Your task to perform on an android device: Clear the cart on ebay.com. Add bose soundsport free to the cart on ebay.com, then select checkout. Image 0: 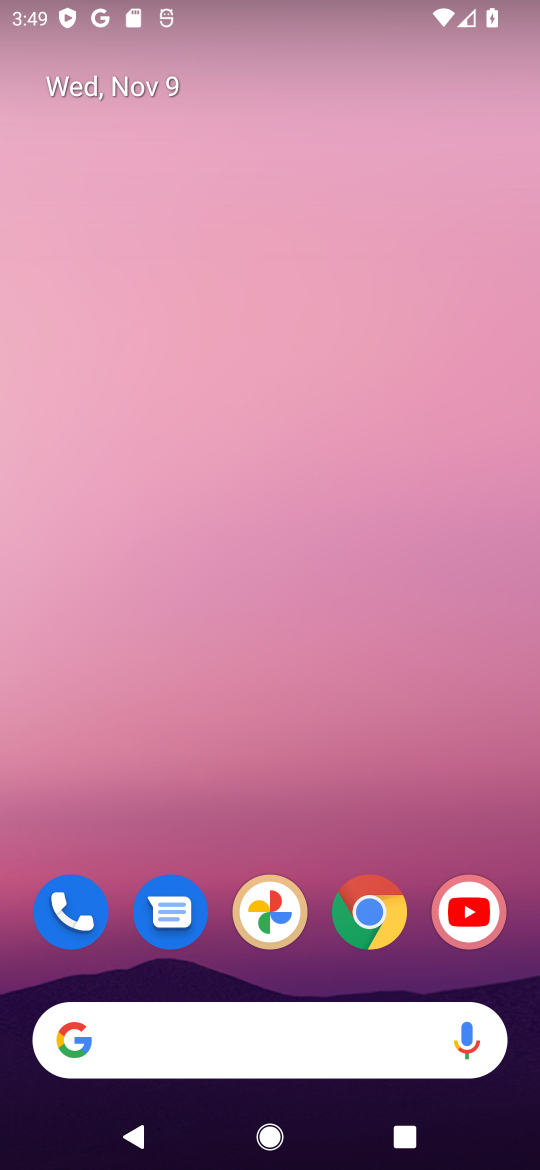
Step 0: click (371, 910)
Your task to perform on an android device: Clear the cart on ebay.com. Add bose soundsport free to the cart on ebay.com, then select checkout. Image 1: 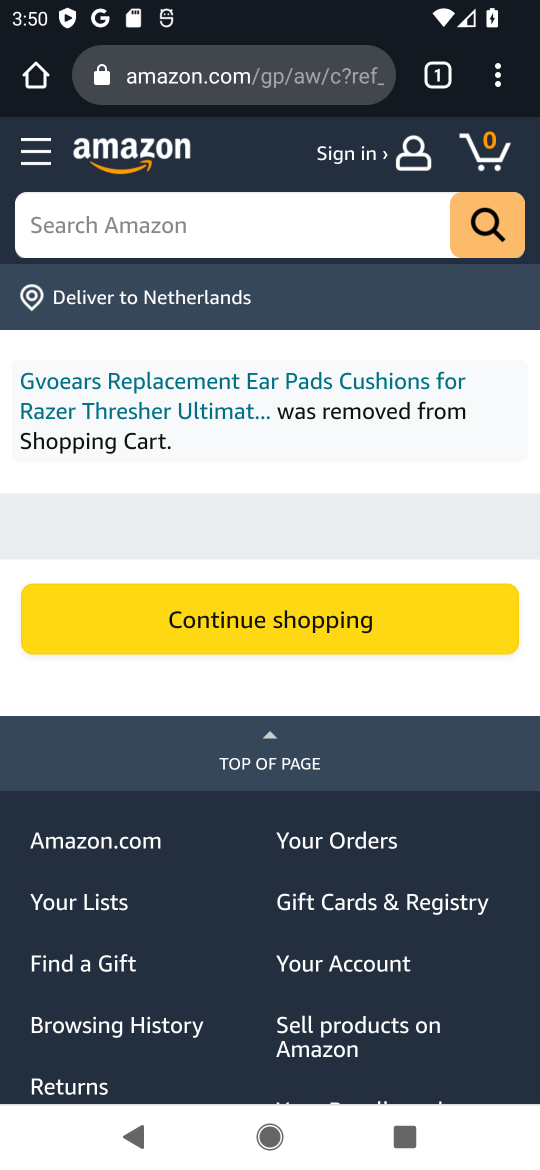
Step 1: click (274, 79)
Your task to perform on an android device: Clear the cart on ebay.com. Add bose soundsport free to the cart on ebay.com, then select checkout. Image 2: 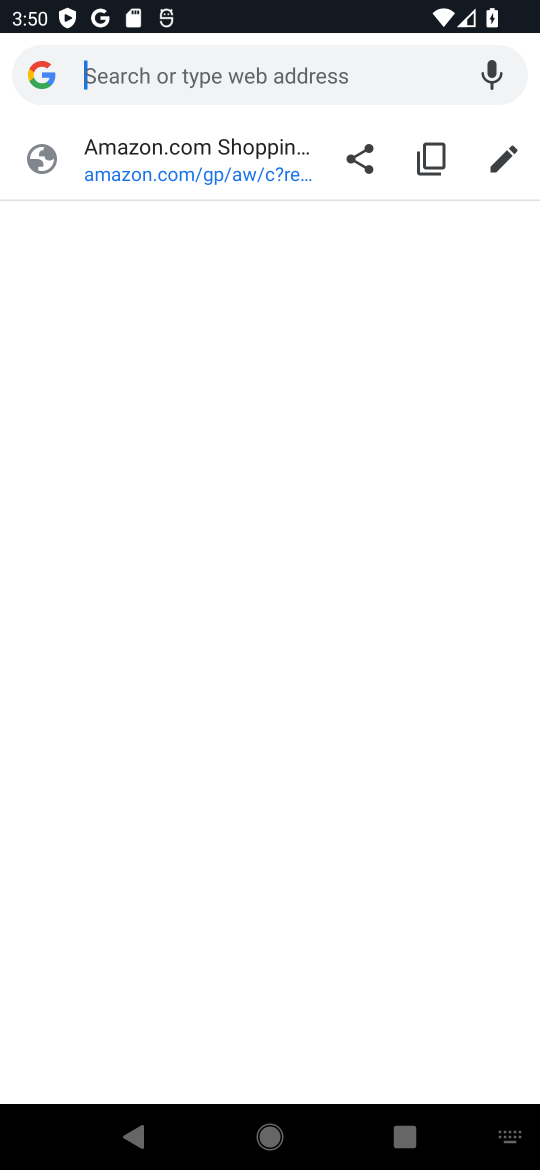
Step 2: type "ebay"
Your task to perform on an android device: Clear the cart on ebay.com. Add bose soundsport free to the cart on ebay.com, then select checkout. Image 3: 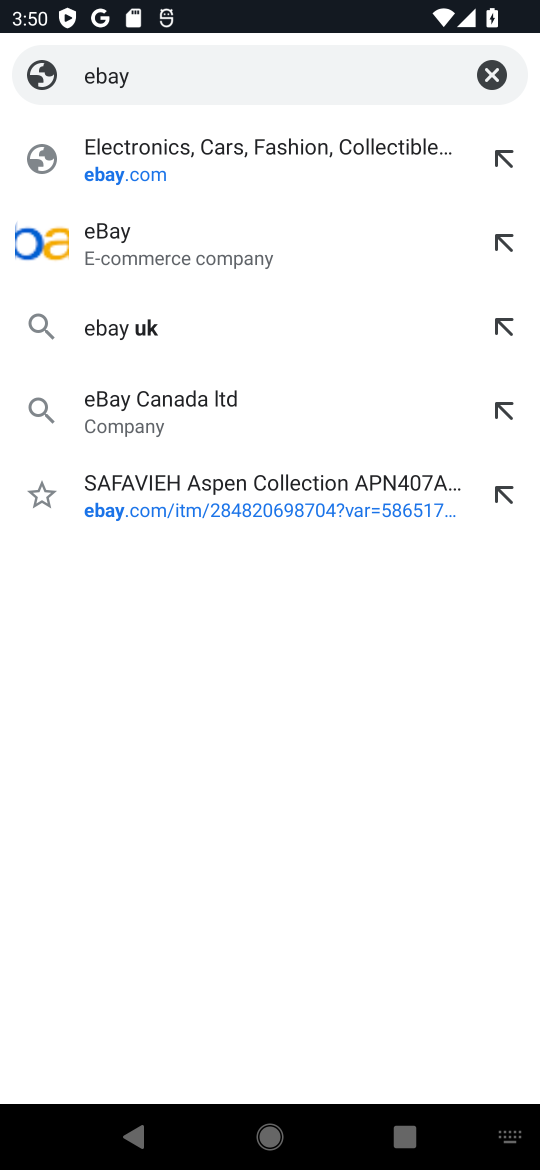
Step 3: click (104, 230)
Your task to perform on an android device: Clear the cart on ebay.com. Add bose soundsport free to the cart on ebay.com, then select checkout. Image 4: 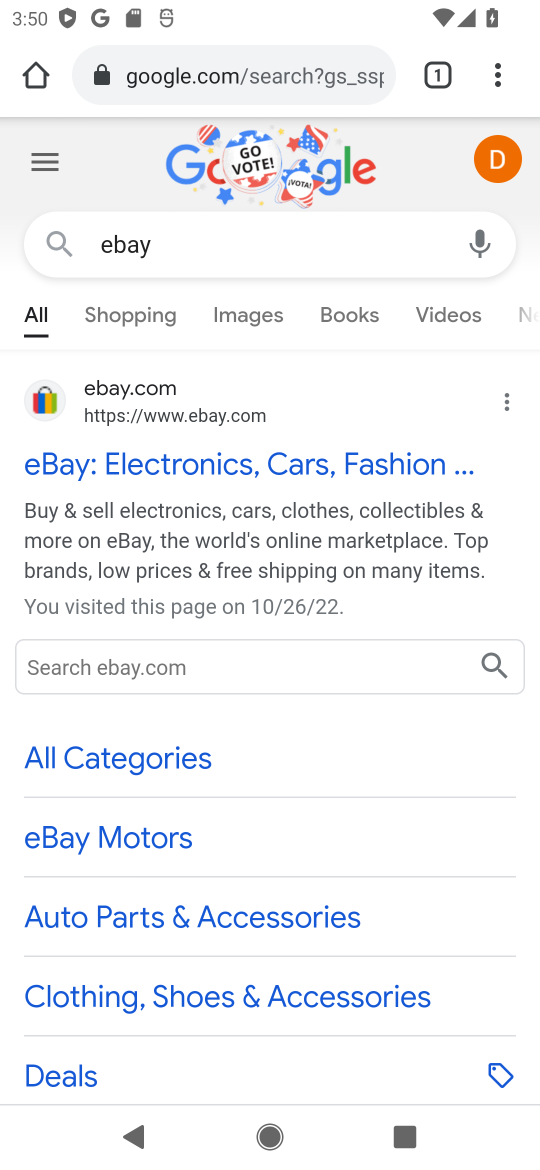
Step 4: click (190, 452)
Your task to perform on an android device: Clear the cart on ebay.com. Add bose soundsport free to the cart on ebay.com, then select checkout. Image 5: 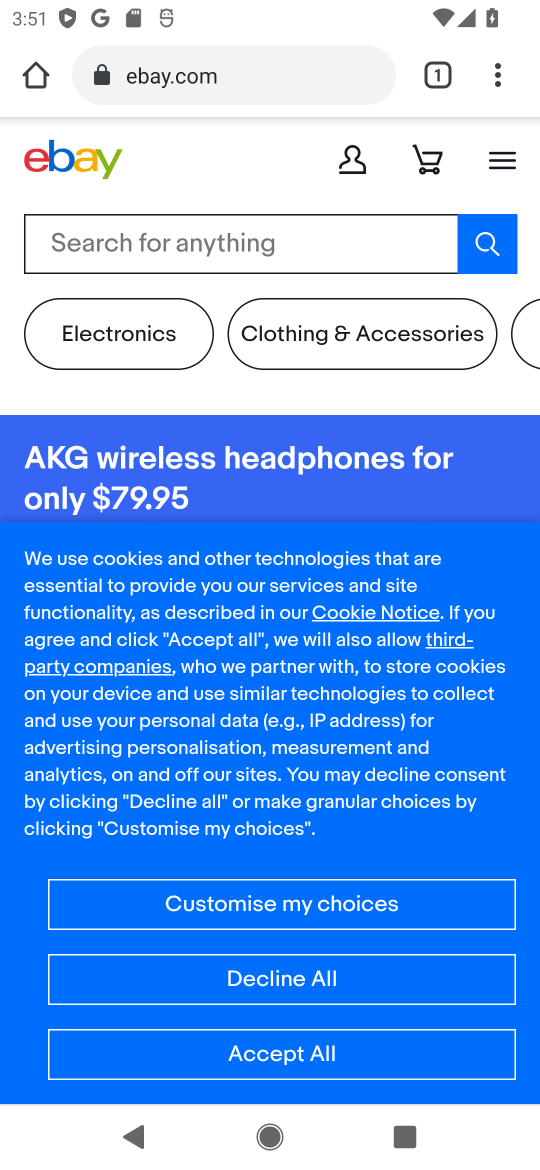
Step 5: click (421, 159)
Your task to perform on an android device: Clear the cart on ebay.com. Add bose soundsport free to the cart on ebay.com, then select checkout. Image 6: 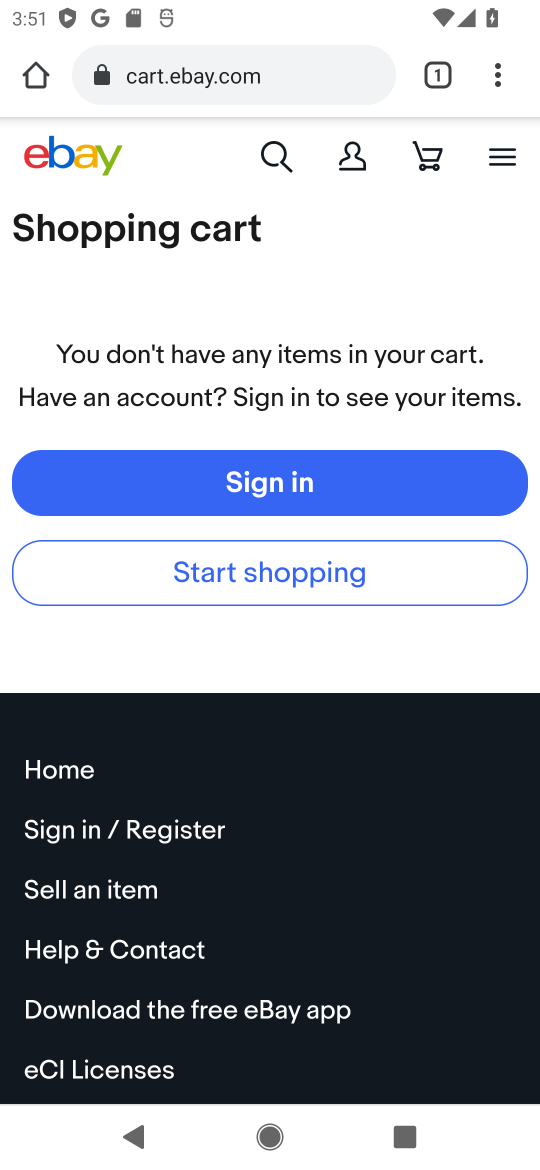
Step 6: click (276, 163)
Your task to perform on an android device: Clear the cart on ebay.com. Add bose soundsport free to the cart on ebay.com, then select checkout. Image 7: 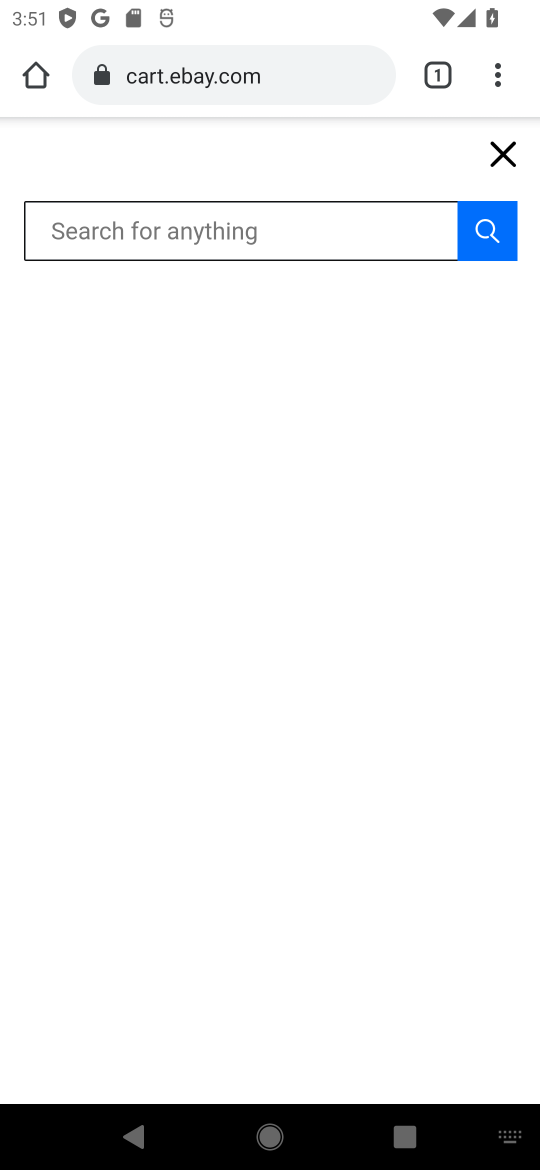
Step 7: click (230, 227)
Your task to perform on an android device: Clear the cart on ebay.com. Add bose soundsport free to the cart on ebay.com, then select checkout. Image 8: 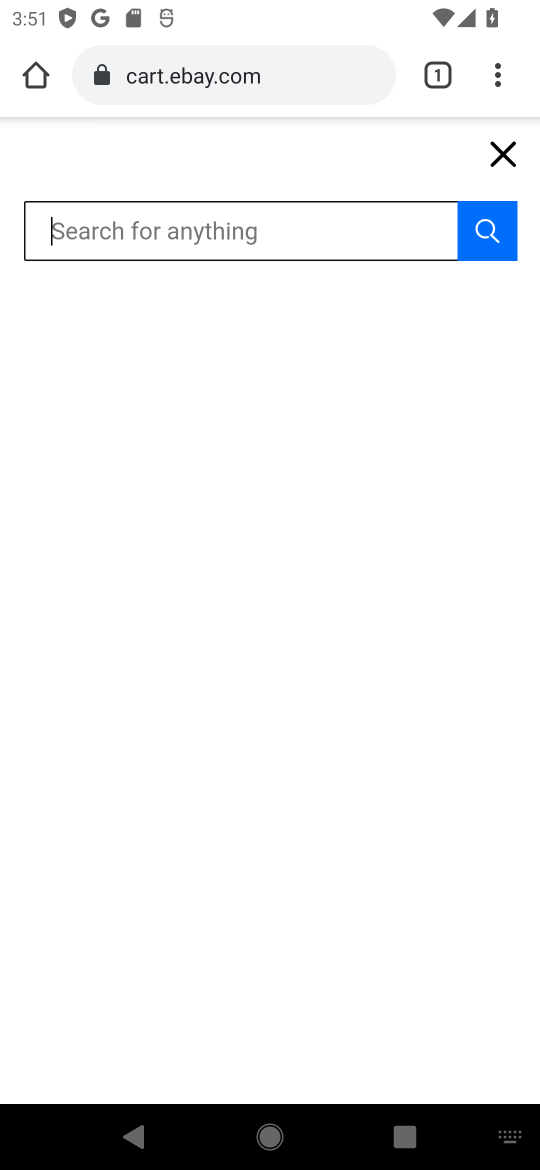
Step 8: type "bose soundsport free"
Your task to perform on an android device: Clear the cart on ebay.com. Add bose soundsport free to the cart on ebay.com, then select checkout. Image 9: 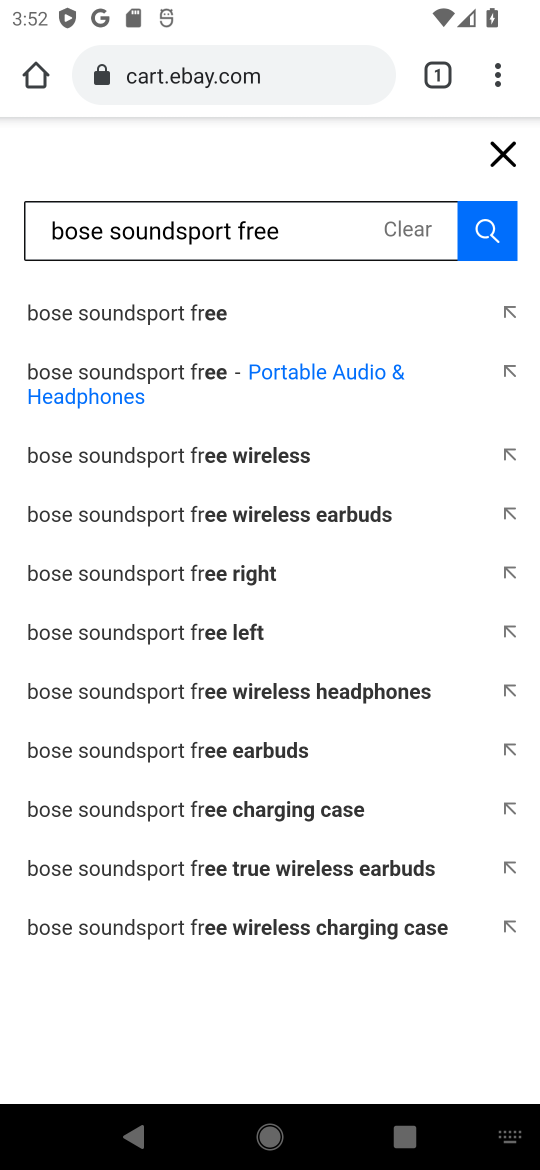
Step 9: click (179, 312)
Your task to perform on an android device: Clear the cart on ebay.com. Add bose soundsport free to the cart on ebay.com, then select checkout. Image 10: 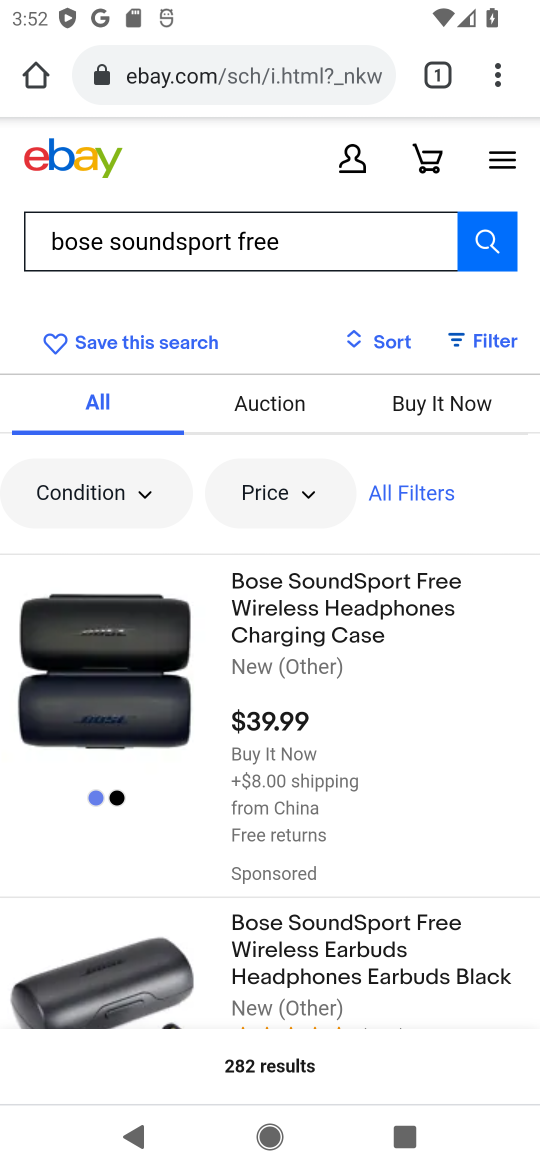
Step 10: click (332, 644)
Your task to perform on an android device: Clear the cart on ebay.com. Add bose soundsport free to the cart on ebay.com, then select checkout. Image 11: 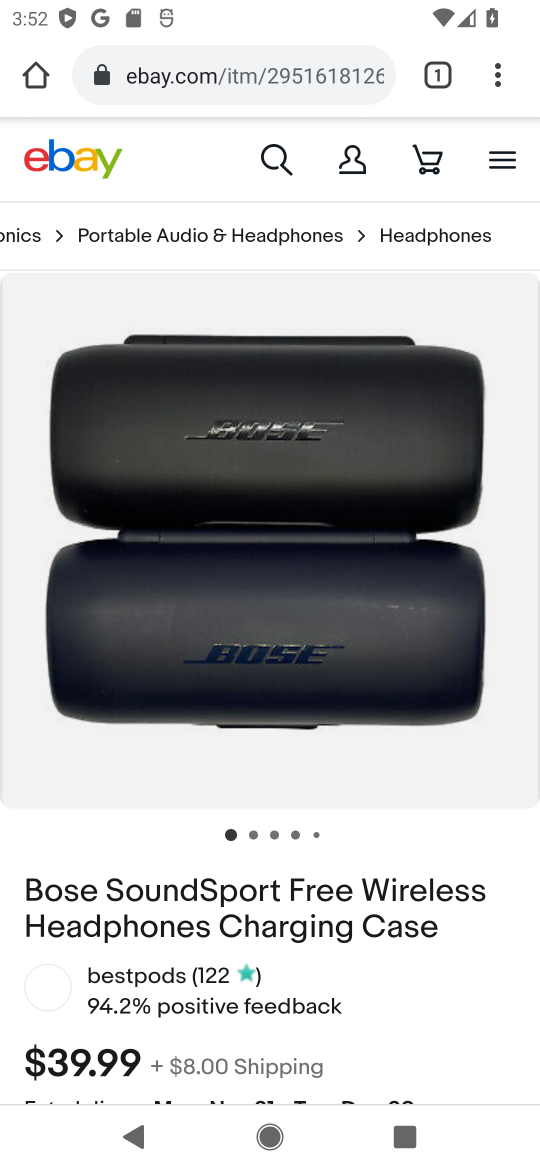
Step 11: drag from (358, 958) to (391, 487)
Your task to perform on an android device: Clear the cart on ebay.com. Add bose soundsport free to the cart on ebay.com, then select checkout. Image 12: 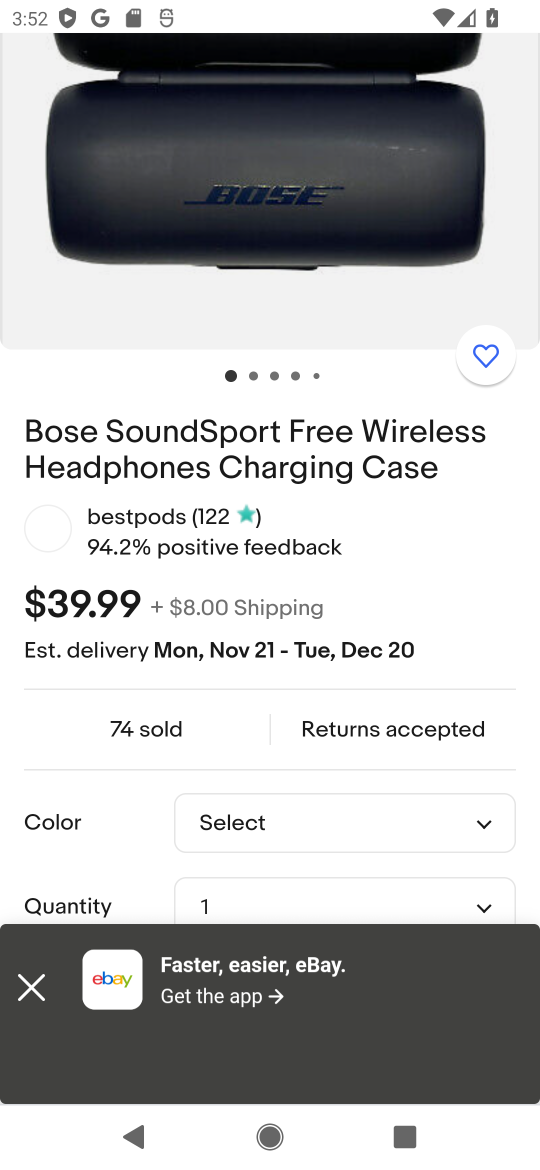
Step 12: drag from (304, 810) to (334, 450)
Your task to perform on an android device: Clear the cart on ebay.com. Add bose soundsport free to the cart on ebay.com, then select checkout. Image 13: 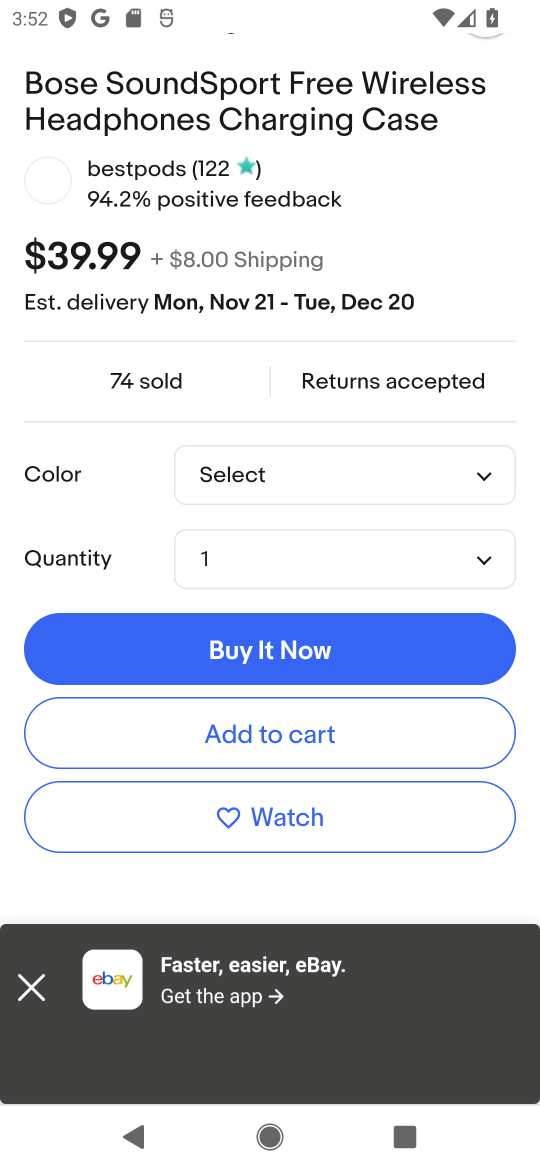
Step 13: click (271, 725)
Your task to perform on an android device: Clear the cart on ebay.com. Add bose soundsport free to the cart on ebay.com, then select checkout. Image 14: 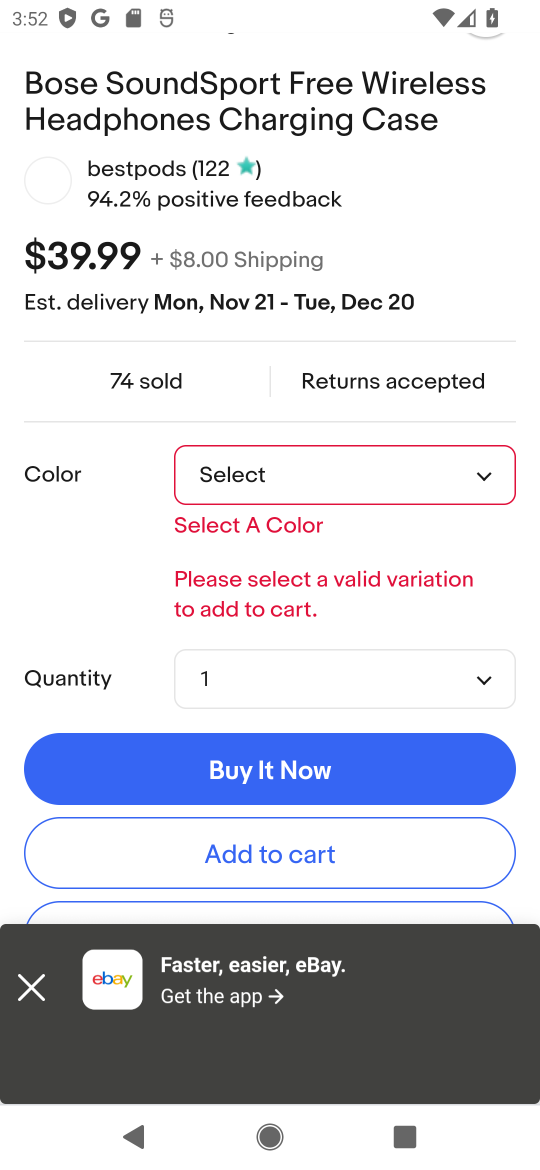
Step 14: click (491, 480)
Your task to perform on an android device: Clear the cart on ebay.com. Add bose soundsport free to the cart on ebay.com, then select checkout. Image 15: 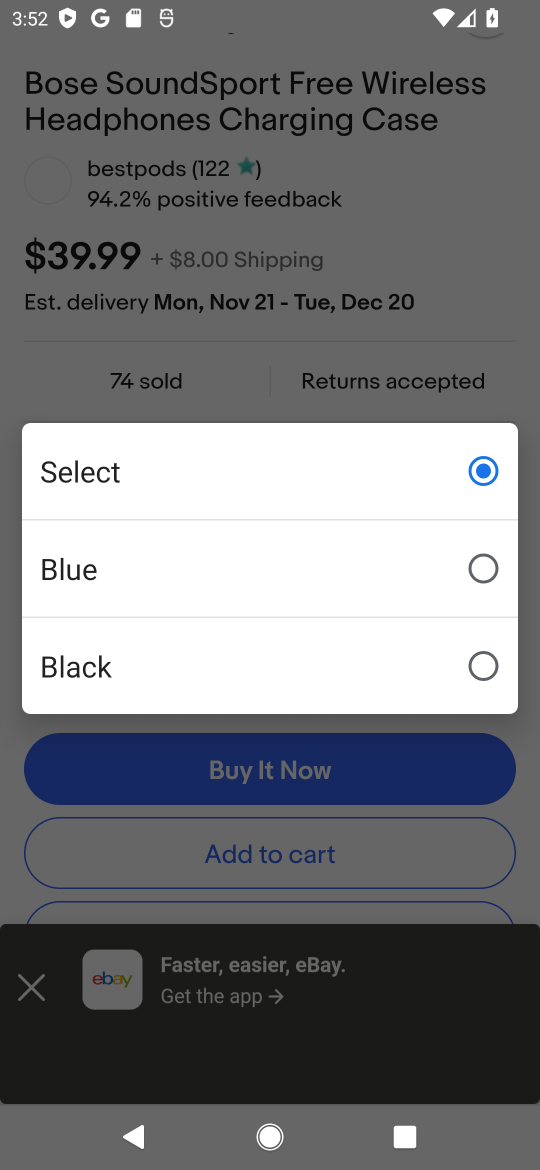
Step 15: click (474, 561)
Your task to perform on an android device: Clear the cart on ebay.com. Add bose soundsport free to the cart on ebay.com, then select checkout. Image 16: 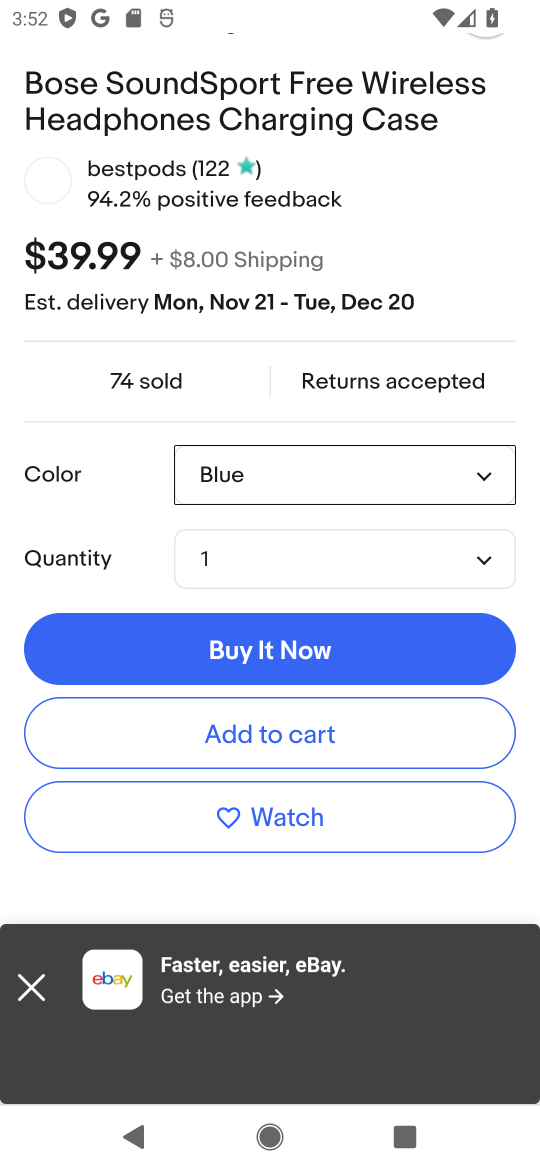
Step 16: click (312, 742)
Your task to perform on an android device: Clear the cart on ebay.com. Add bose soundsport free to the cart on ebay.com, then select checkout. Image 17: 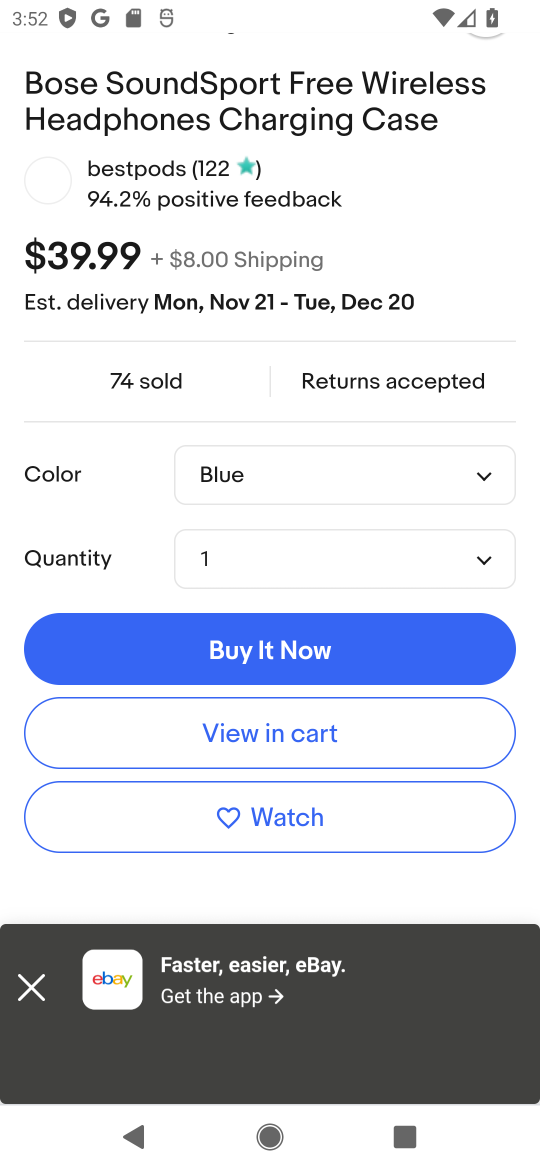
Step 17: click (271, 735)
Your task to perform on an android device: Clear the cart on ebay.com. Add bose soundsport free to the cart on ebay.com, then select checkout. Image 18: 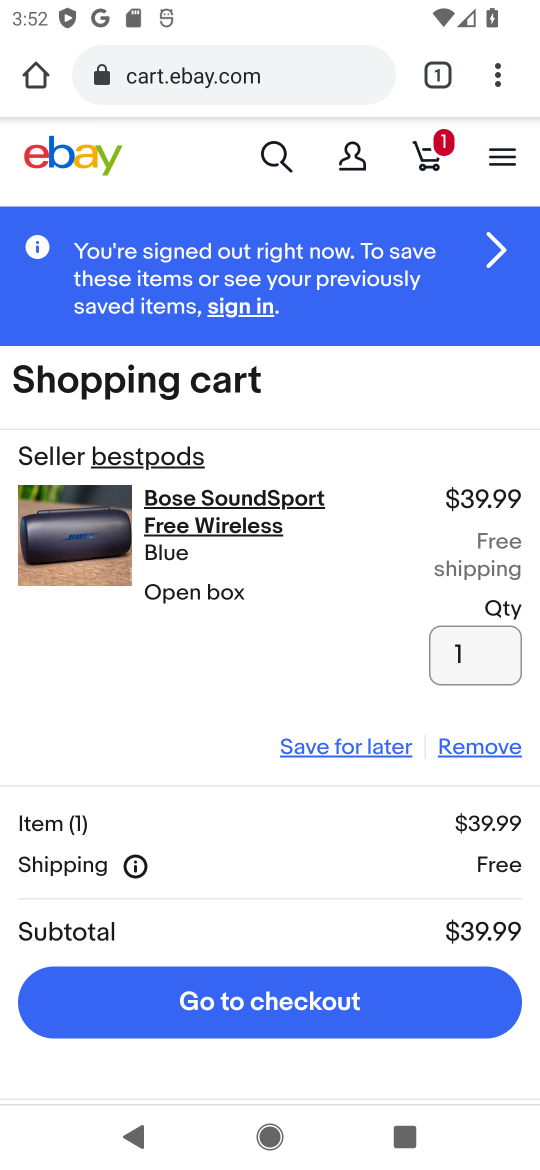
Step 18: click (228, 1001)
Your task to perform on an android device: Clear the cart on ebay.com. Add bose soundsport free to the cart on ebay.com, then select checkout. Image 19: 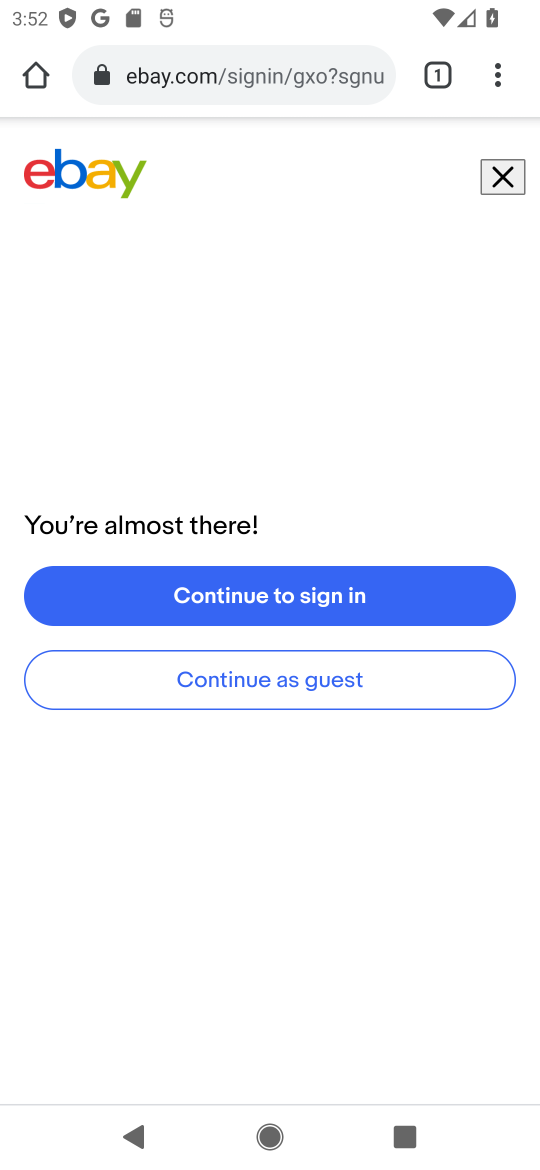
Step 19: task complete